Your task to perform on an android device: Open Reddit.com Image 0: 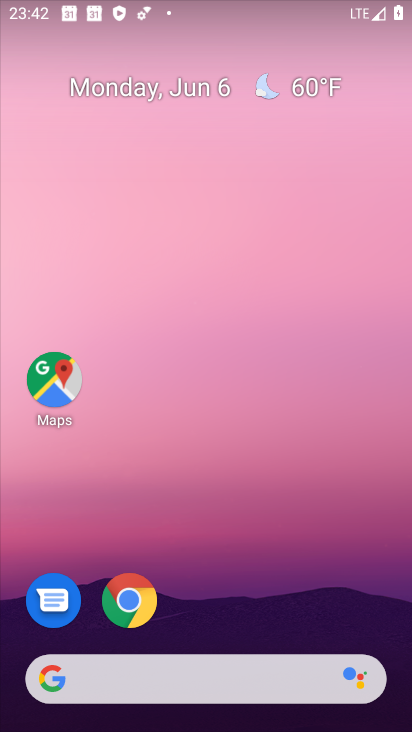
Step 0: click (137, 605)
Your task to perform on an android device: Open Reddit.com Image 1: 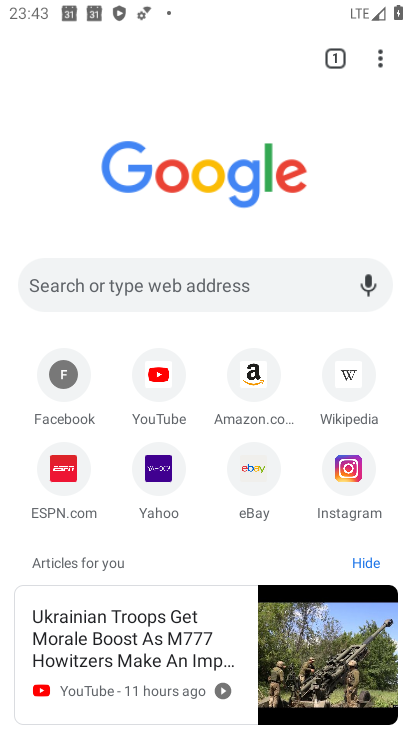
Step 1: click (149, 292)
Your task to perform on an android device: Open Reddit.com Image 2: 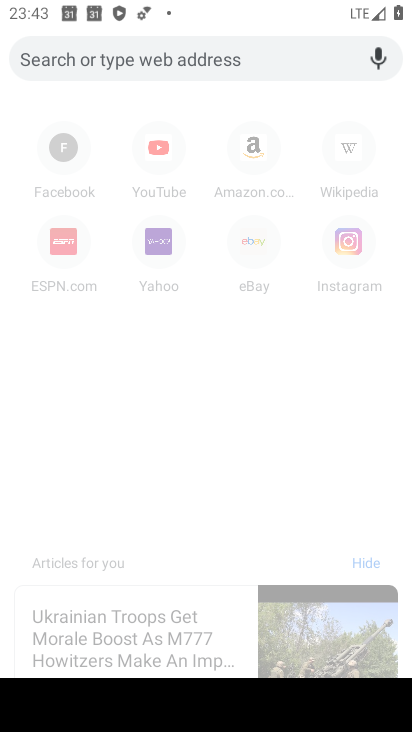
Step 2: type "Reddit.com"
Your task to perform on an android device: Open Reddit.com Image 3: 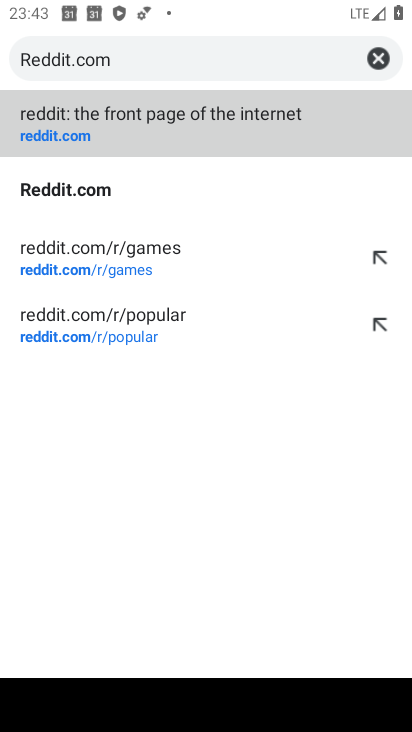
Step 3: click (176, 122)
Your task to perform on an android device: Open Reddit.com Image 4: 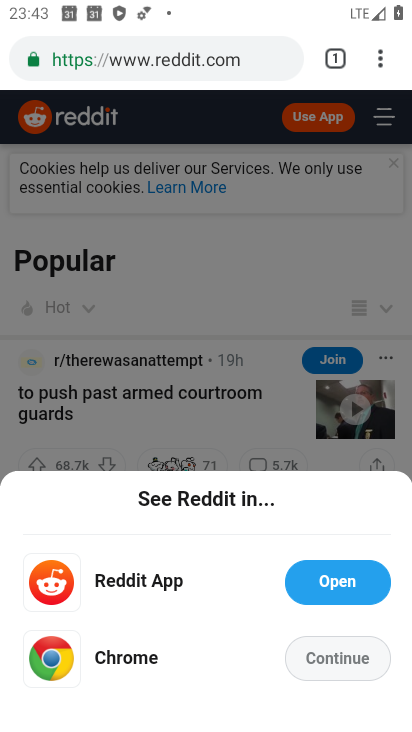
Step 4: task complete